Your task to perform on an android device: What is the recent news? Image 0: 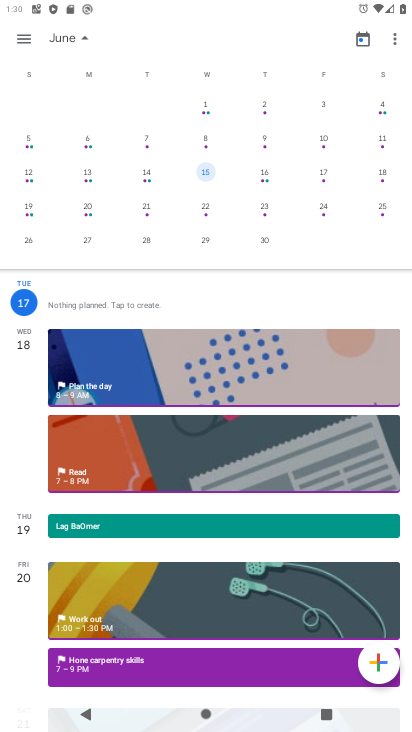
Step 0: press home button
Your task to perform on an android device: What is the recent news? Image 1: 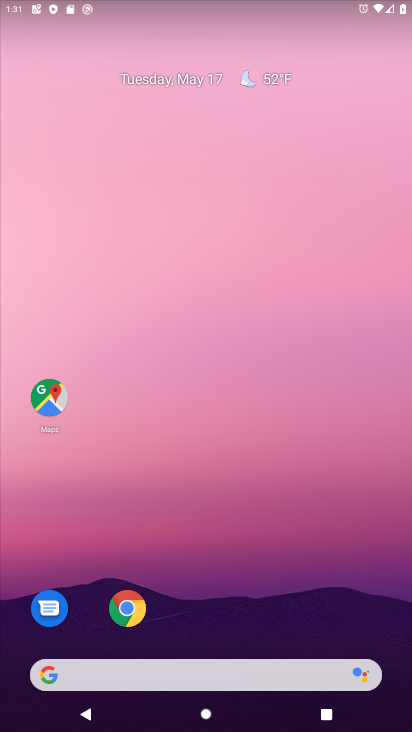
Step 1: click (119, 671)
Your task to perform on an android device: What is the recent news? Image 2: 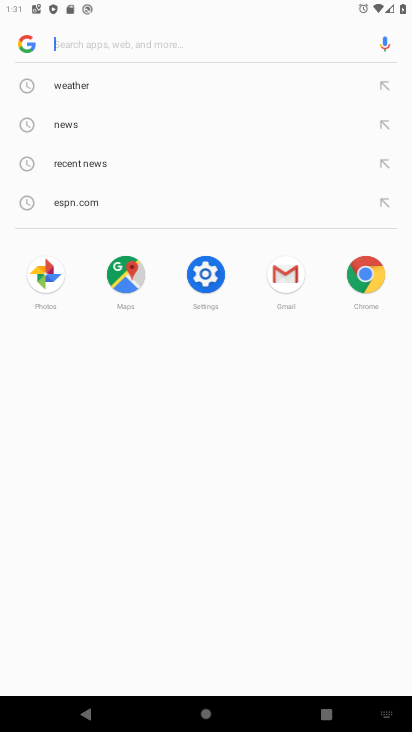
Step 2: click (89, 130)
Your task to perform on an android device: What is the recent news? Image 3: 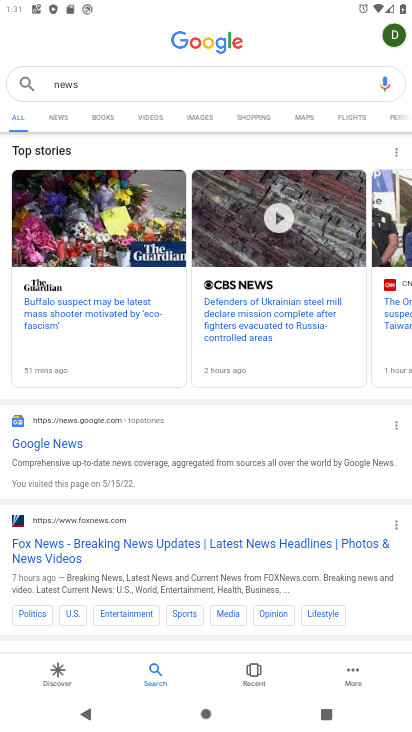
Step 3: task complete